Your task to perform on an android device: toggle airplane mode Image 0: 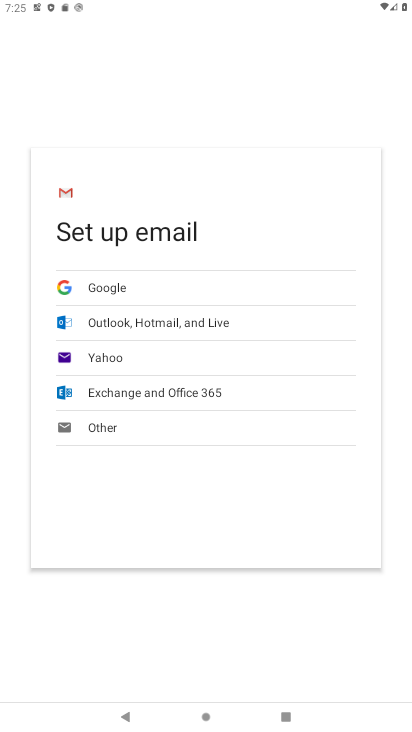
Step 0: press home button
Your task to perform on an android device: toggle airplane mode Image 1: 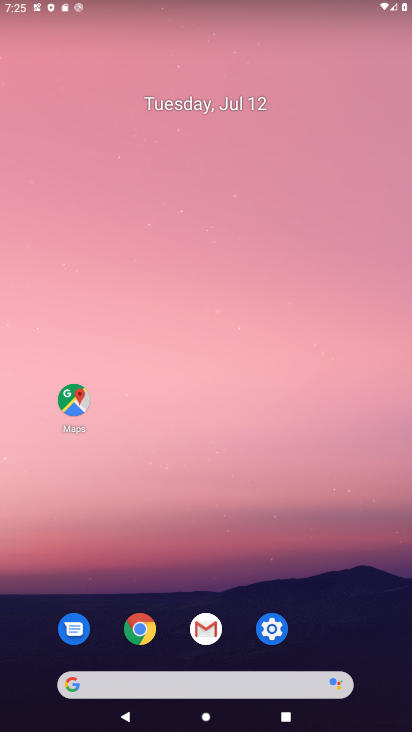
Step 1: click (280, 639)
Your task to perform on an android device: toggle airplane mode Image 2: 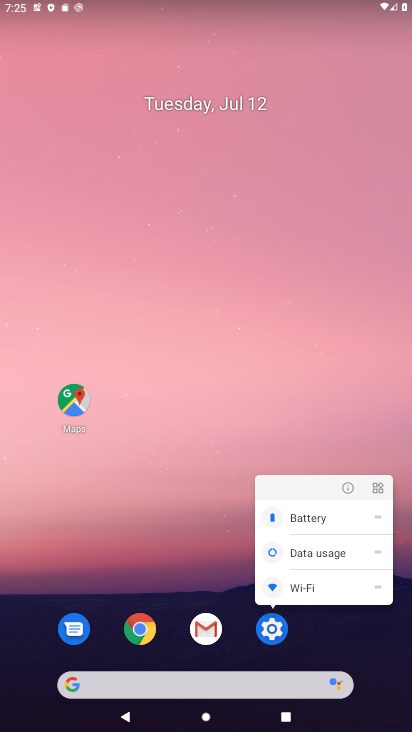
Step 2: click (274, 619)
Your task to perform on an android device: toggle airplane mode Image 3: 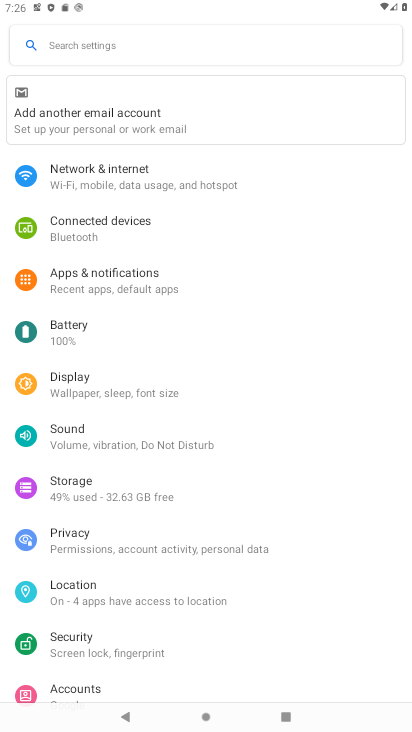
Step 3: click (120, 186)
Your task to perform on an android device: toggle airplane mode Image 4: 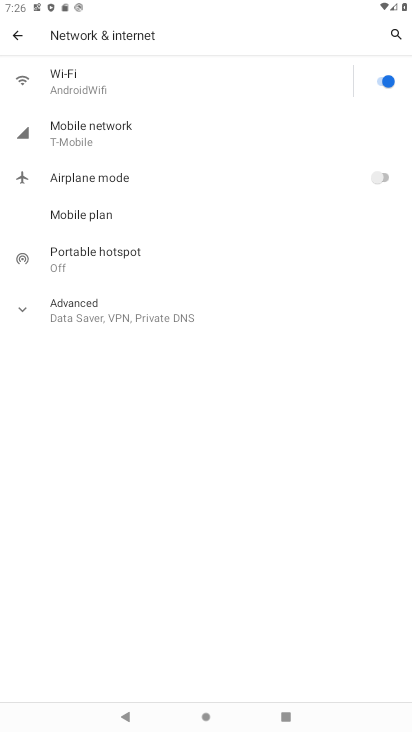
Step 4: click (385, 179)
Your task to perform on an android device: toggle airplane mode Image 5: 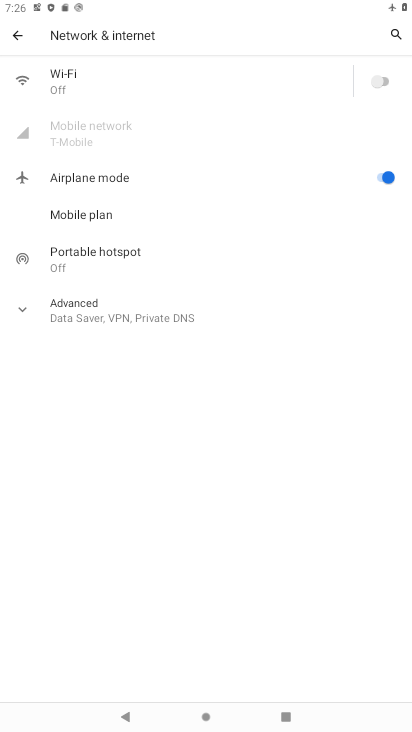
Step 5: click (382, 180)
Your task to perform on an android device: toggle airplane mode Image 6: 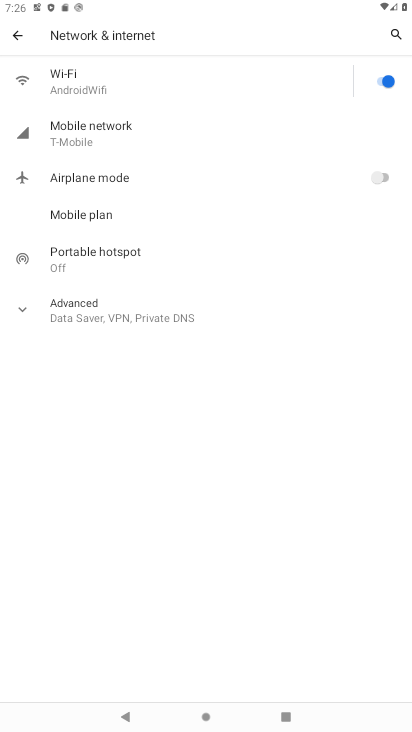
Step 6: task complete